Your task to perform on an android device: turn on the 12-hour format for clock Image 0: 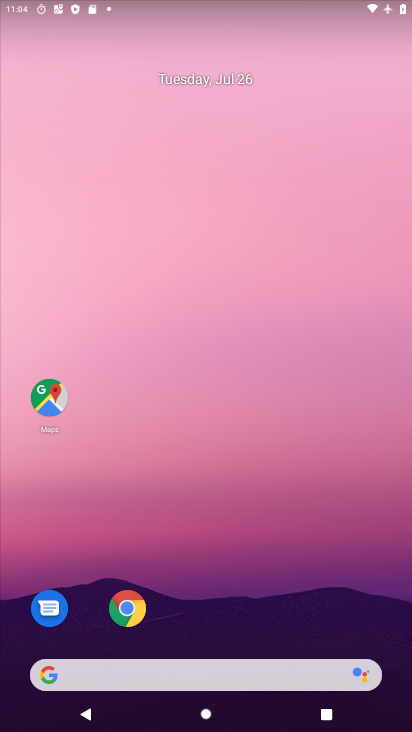
Step 0: drag from (276, 269) to (276, 13)
Your task to perform on an android device: turn on the 12-hour format for clock Image 1: 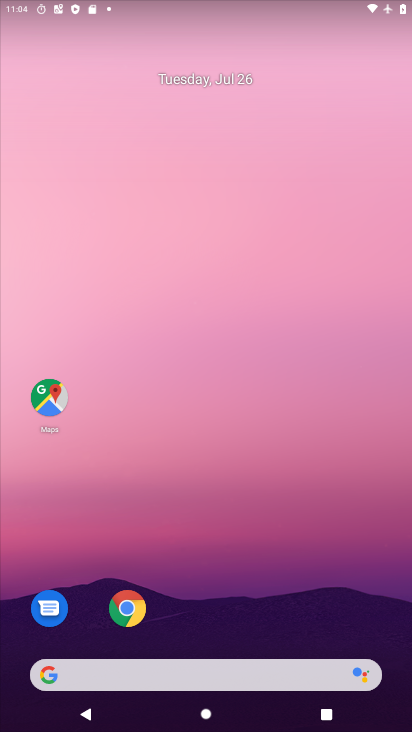
Step 1: drag from (240, 609) to (268, 1)
Your task to perform on an android device: turn on the 12-hour format for clock Image 2: 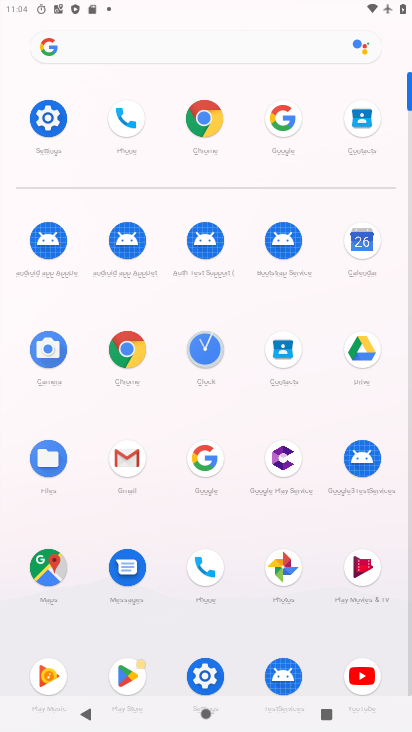
Step 2: click (209, 362)
Your task to perform on an android device: turn on the 12-hour format for clock Image 3: 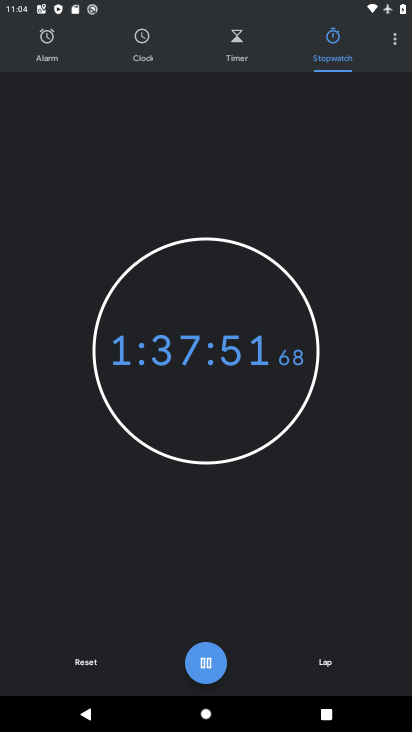
Step 3: click (386, 37)
Your task to perform on an android device: turn on the 12-hour format for clock Image 4: 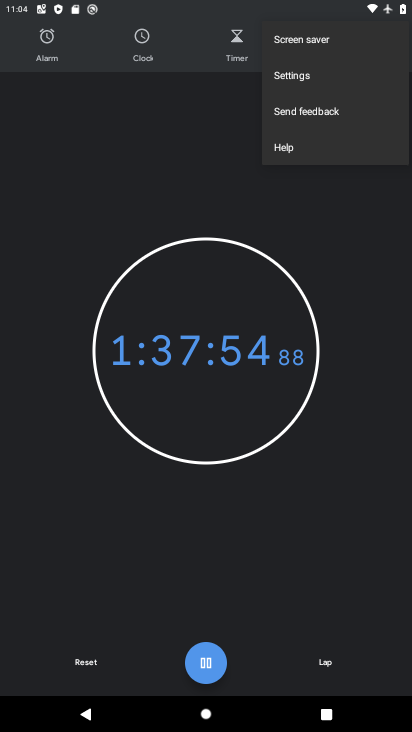
Step 4: click (335, 78)
Your task to perform on an android device: turn on the 12-hour format for clock Image 5: 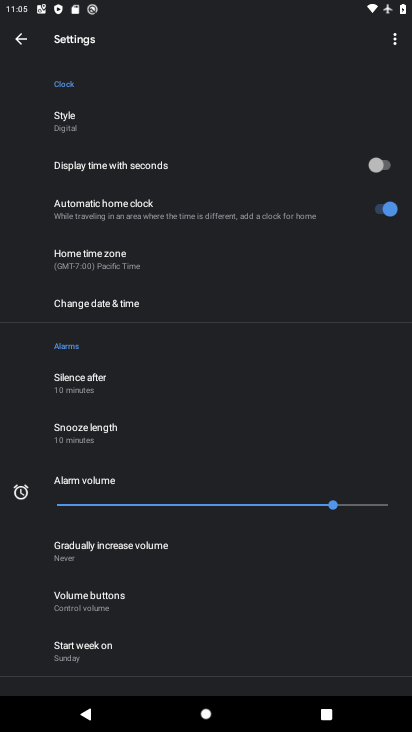
Step 5: click (134, 309)
Your task to perform on an android device: turn on the 12-hour format for clock Image 6: 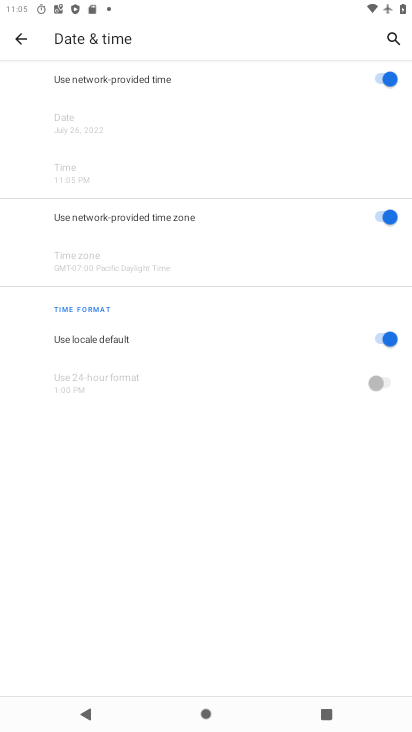
Step 6: task complete